Your task to perform on an android device: open sync settings in chrome Image 0: 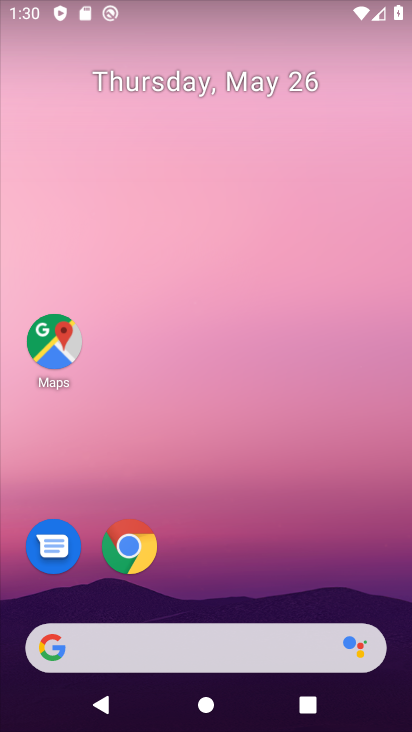
Step 0: click (127, 548)
Your task to perform on an android device: open sync settings in chrome Image 1: 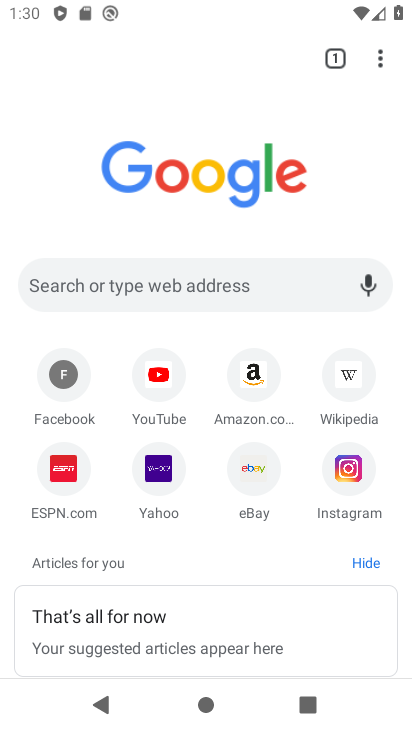
Step 1: click (367, 61)
Your task to perform on an android device: open sync settings in chrome Image 2: 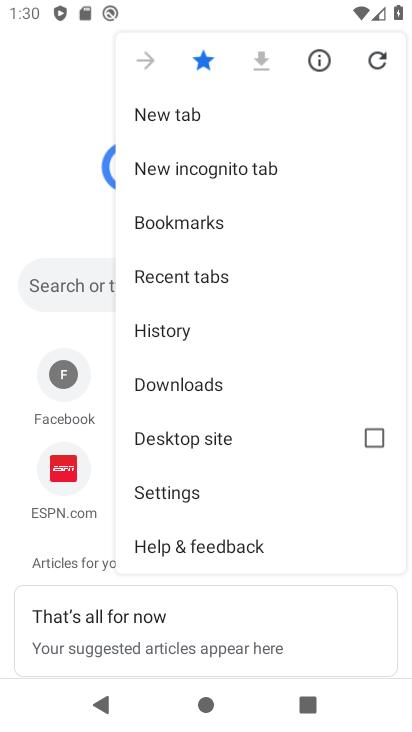
Step 2: click (200, 502)
Your task to perform on an android device: open sync settings in chrome Image 3: 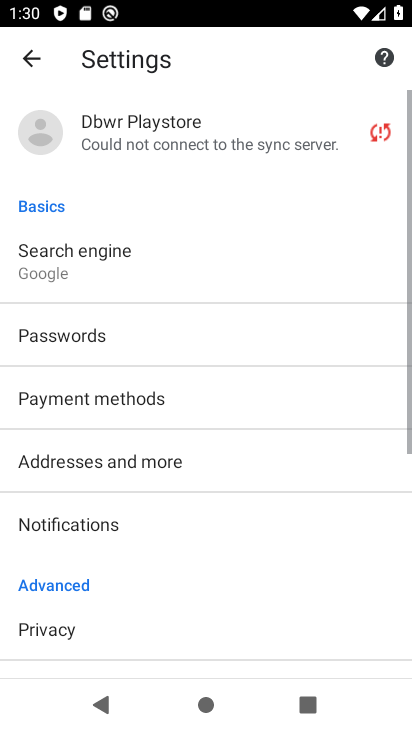
Step 3: drag from (215, 494) to (238, 97)
Your task to perform on an android device: open sync settings in chrome Image 4: 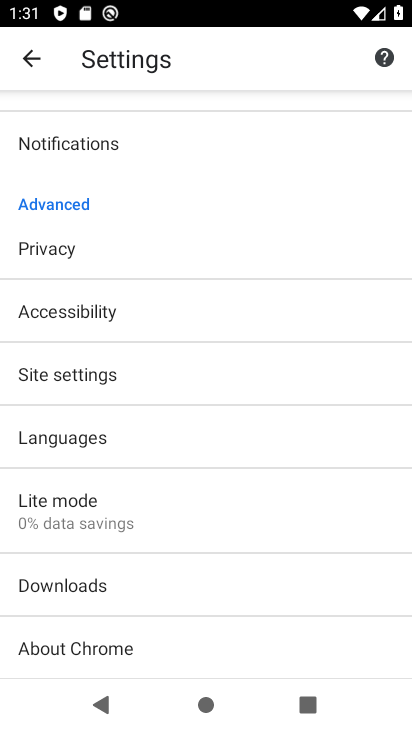
Step 4: click (78, 380)
Your task to perform on an android device: open sync settings in chrome Image 5: 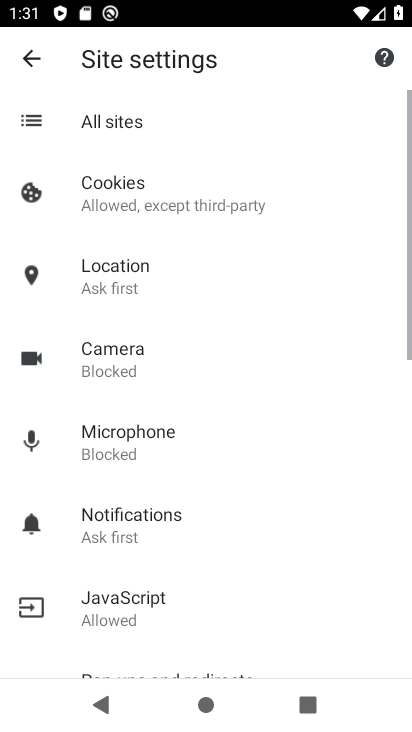
Step 5: drag from (200, 516) to (195, 79)
Your task to perform on an android device: open sync settings in chrome Image 6: 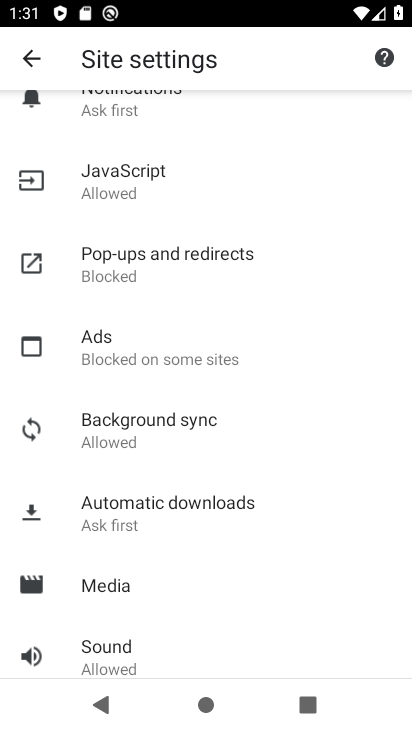
Step 6: click (160, 438)
Your task to perform on an android device: open sync settings in chrome Image 7: 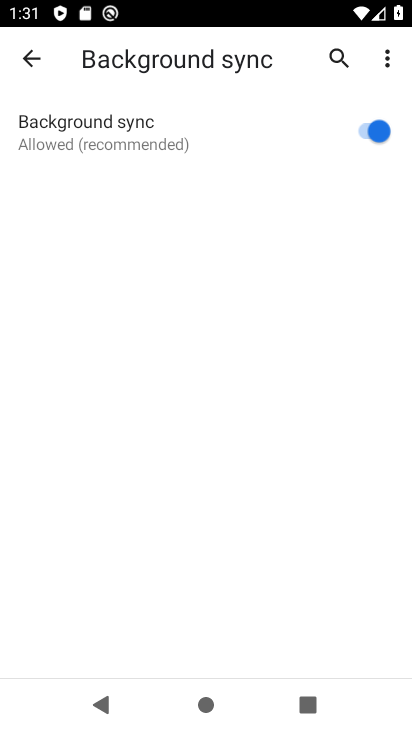
Step 7: task complete